Your task to perform on an android device: Go to Maps Image 0: 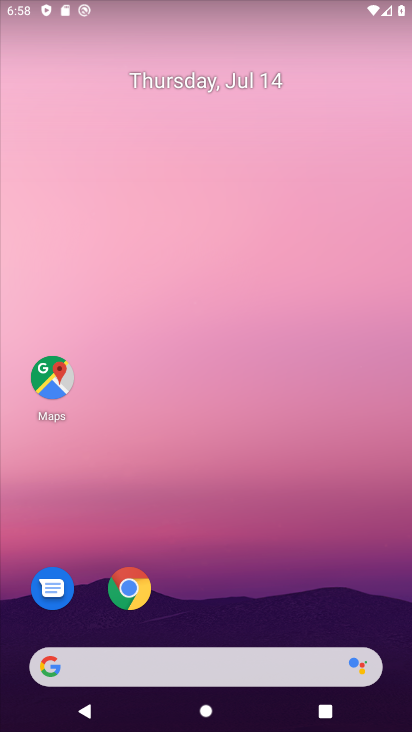
Step 0: drag from (374, 623) to (252, 15)
Your task to perform on an android device: Go to Maps Image 1: 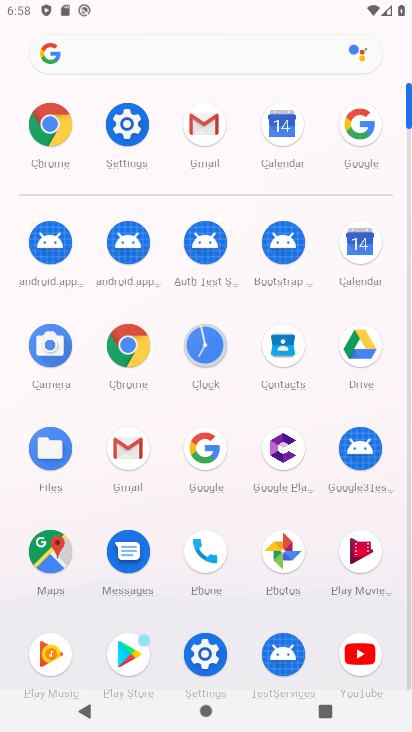
Step 1: click (44, 552)
Your task to perform on an android device: Go to Maps Image 2: 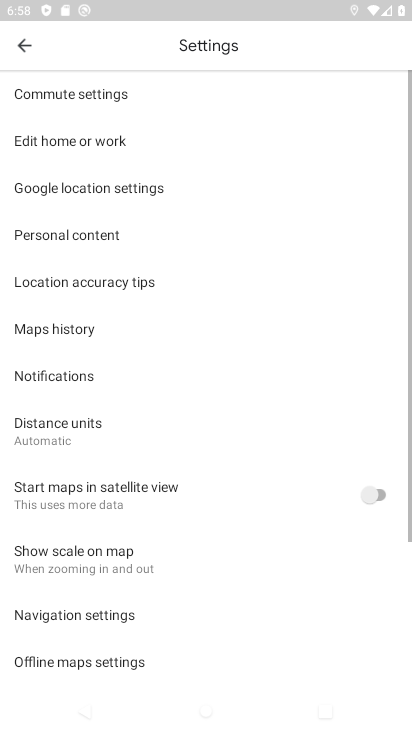
Step 2: task complete